Your task to perform on an android device: allow cookies in the chrome app Image 0: 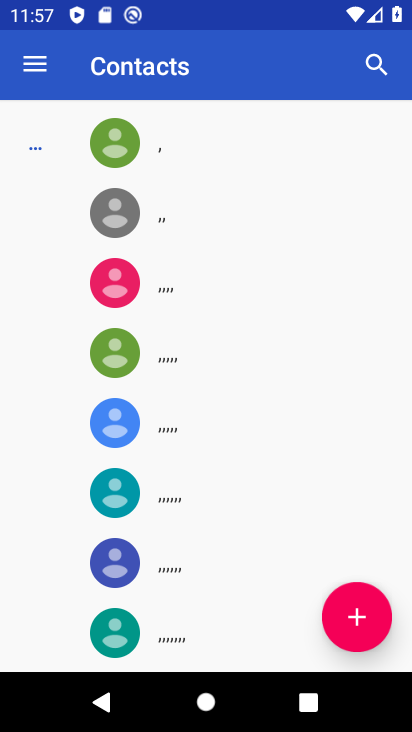
Step 0: press home button
Your task to perform on an android device: allow cookies in the chrome app Image 1: 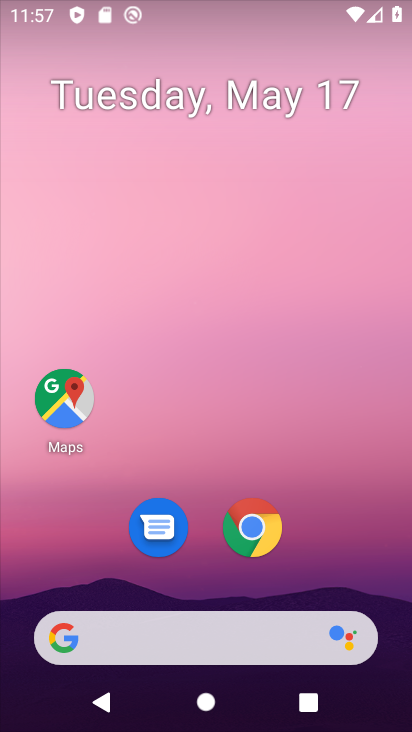
Step 1: click (222, 519)
Your task to perform on an android device: allow cookies in the chrome app Image 2: 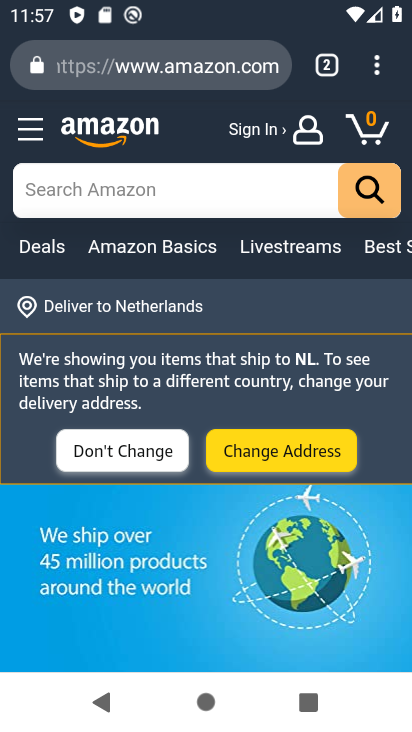
Step 2: click (375, 60)
Your task to perform on an android device: allow cookies in the chrome app Image 3: 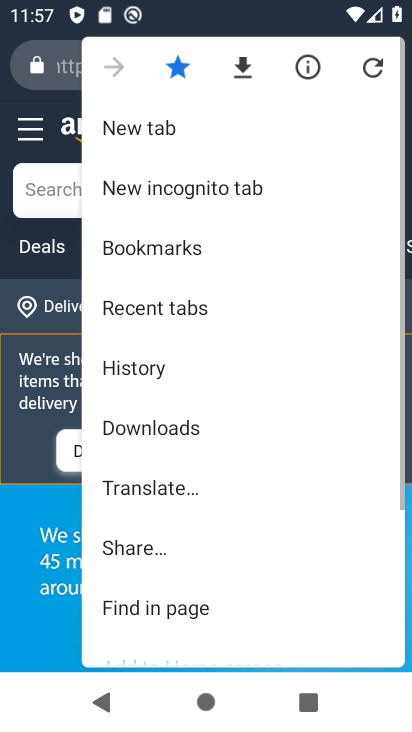
Step 3: drag from (279, 581) to (234, 113)
Your task to perform on an android device: allow cookies in the chrome app Image 4: 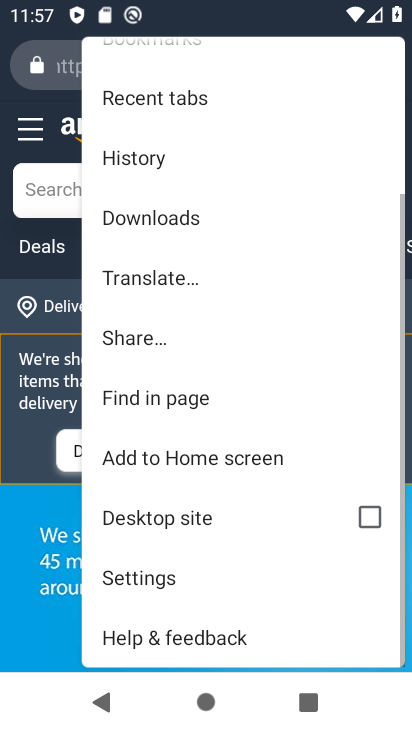
Step 4: click (217, 581)
Your task to perform on an android device: allow cookies in the chrome app Image 5: 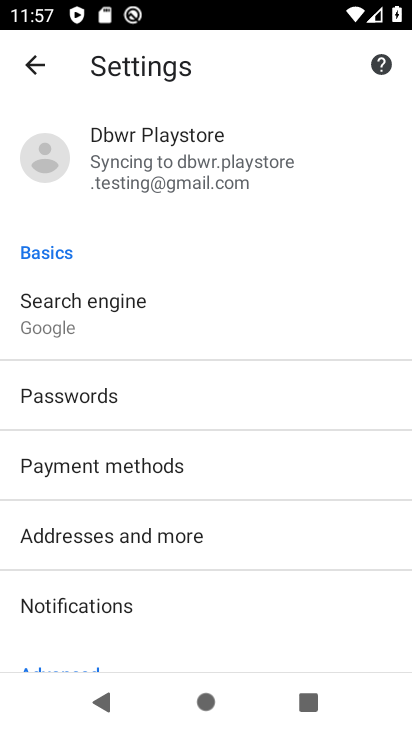
Step 5: drag from (223, 546) to (164, 71)
Your task to perform on an android device: allow cookies in the chrome app Image 6: 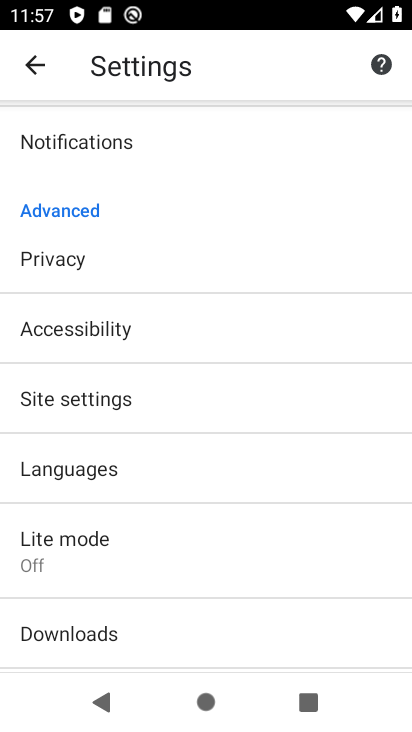
Step 6: click (95, 390)
Your task to perform on an android device: allow cookies in the chrome app Image 7: 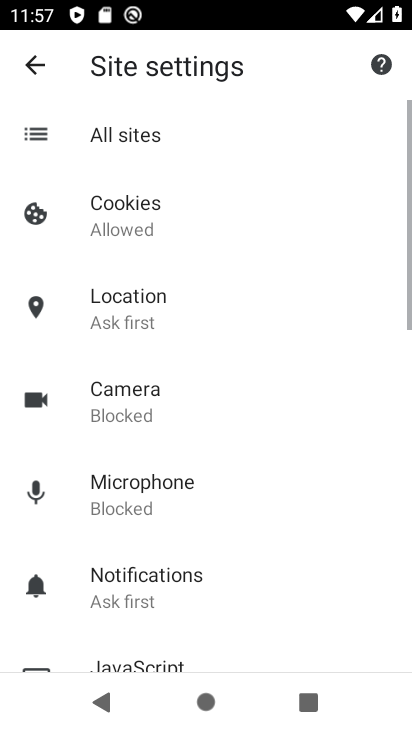
Step 7: click (186, 231)
Your task to perform on an android device: allow cookies in the chrome app Image 8: 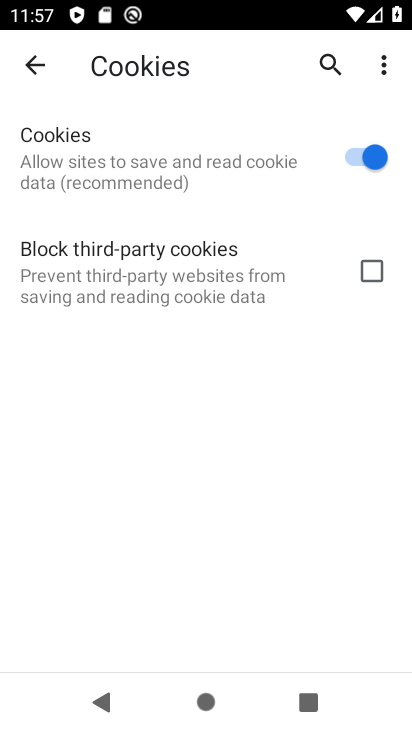
Step 8: task complete